Your task to perform on an android device: turn notification dots on Image 0: 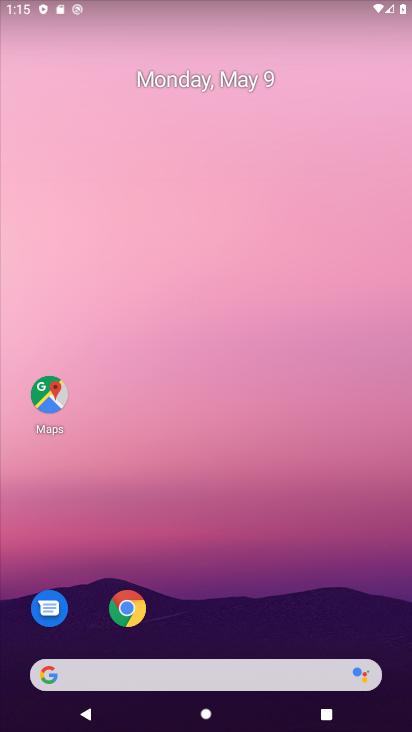
Step 0: drag from (325, 594) to (297, 89)
Your task to perform on an android device: turn notification dots on Image 1: 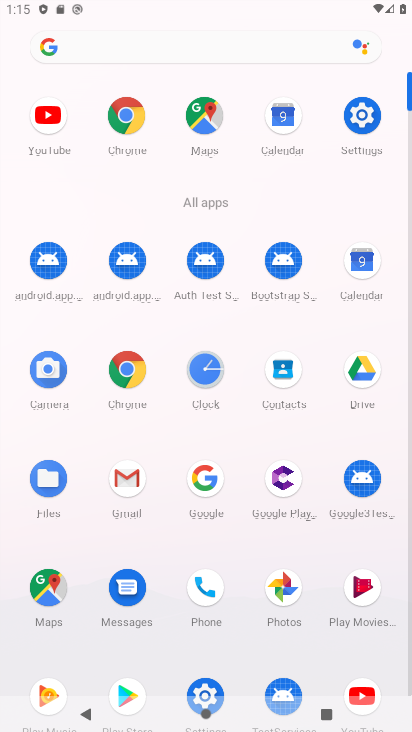
Step 1: click (343, 114)
Your task to perform on an android device: turn notification dots on Image 2: 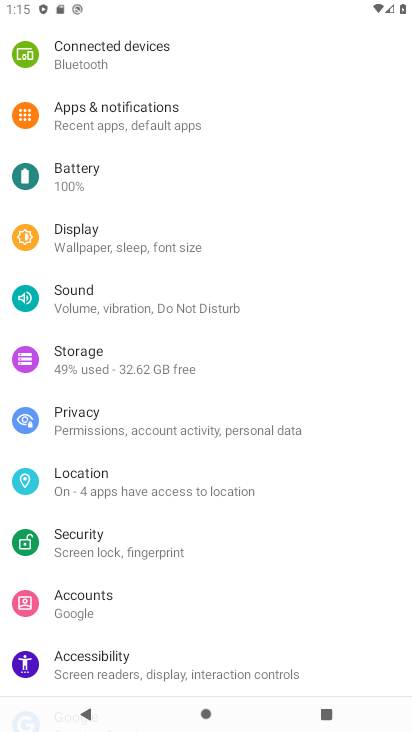
Step 2: click (133, 128)
Your task to perform on an android device: turn notification dots on Image 3: 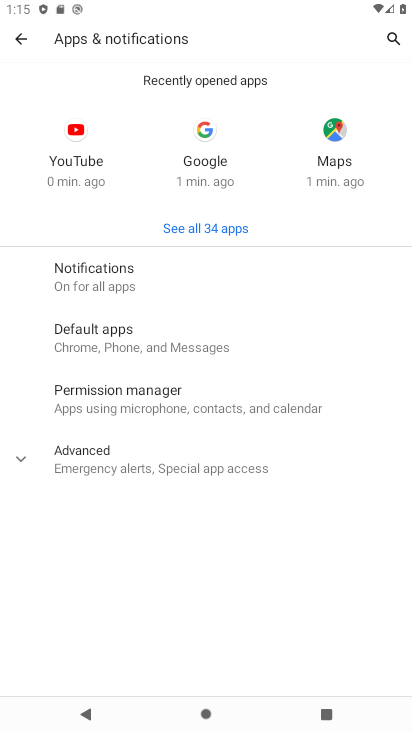
Step 3: click (163, 265)
Your task to perform on an android device: turn notification dots on Image 4: 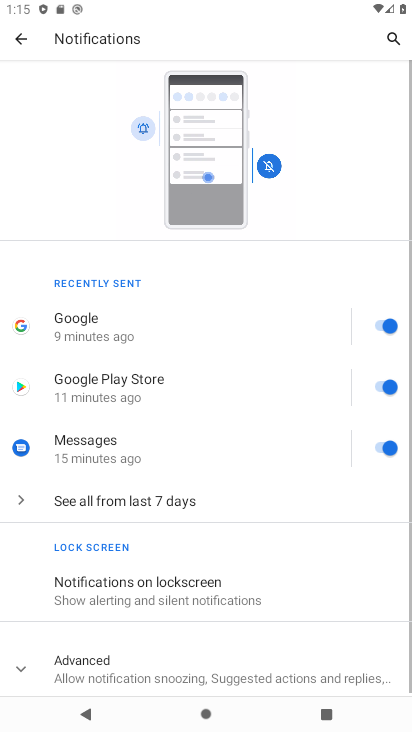
Step 4: click (143, 671)
Your task to perform on an android device: turn notification dots on Image 5: 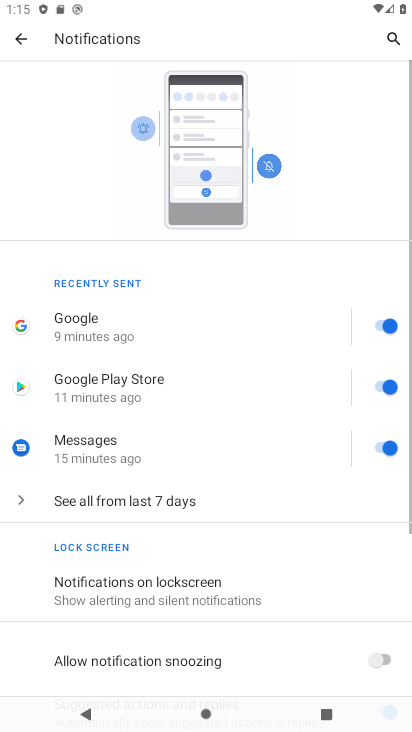
Step 5: drag from (143, 668) to (209, 294)
Your task to perform on an android device: turn notification dots on Image 6: 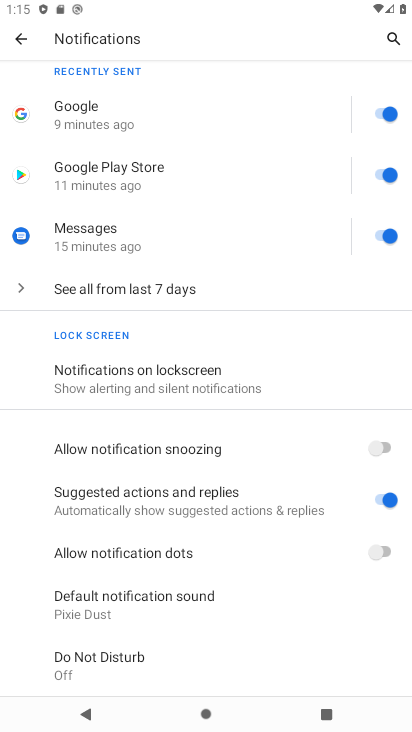
Step 6: click (248, 552)
Your task to perform on an android device: turn notification dots on Image 7: 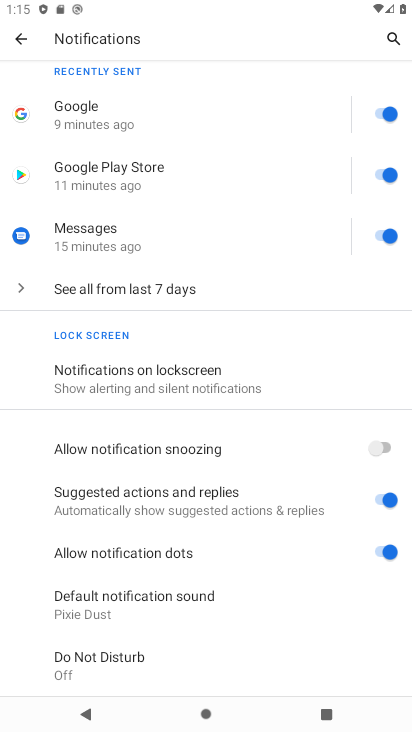
Step 7: task complete